Your task to perform on an android device: search for starred emails in the gmail app Image 0: 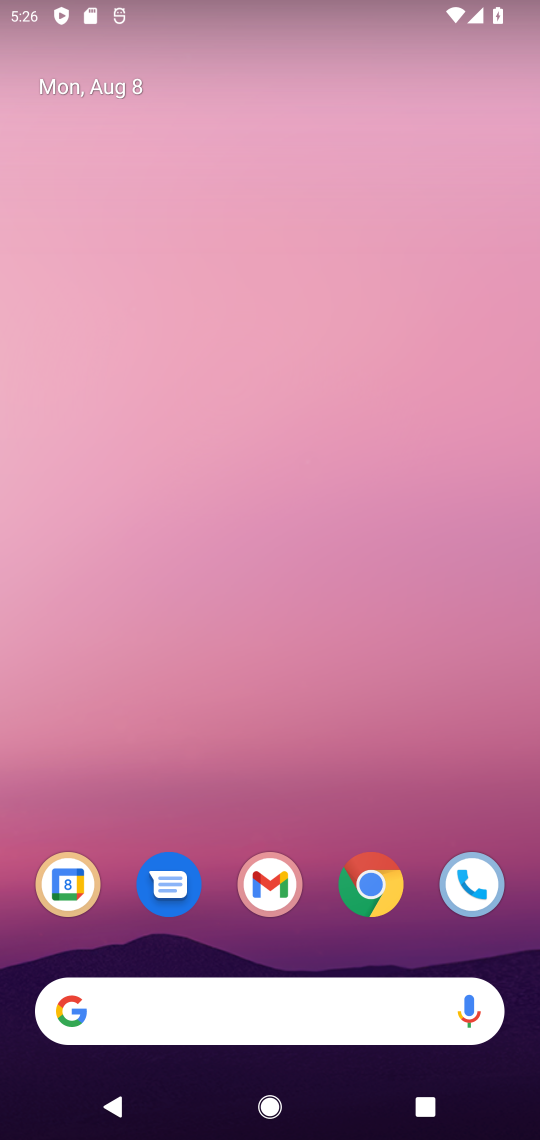
Step 0: drag from (322, 846) to (284, 116)
Your task to perform on an android device: search for starred emails in the gmail app Image 1: 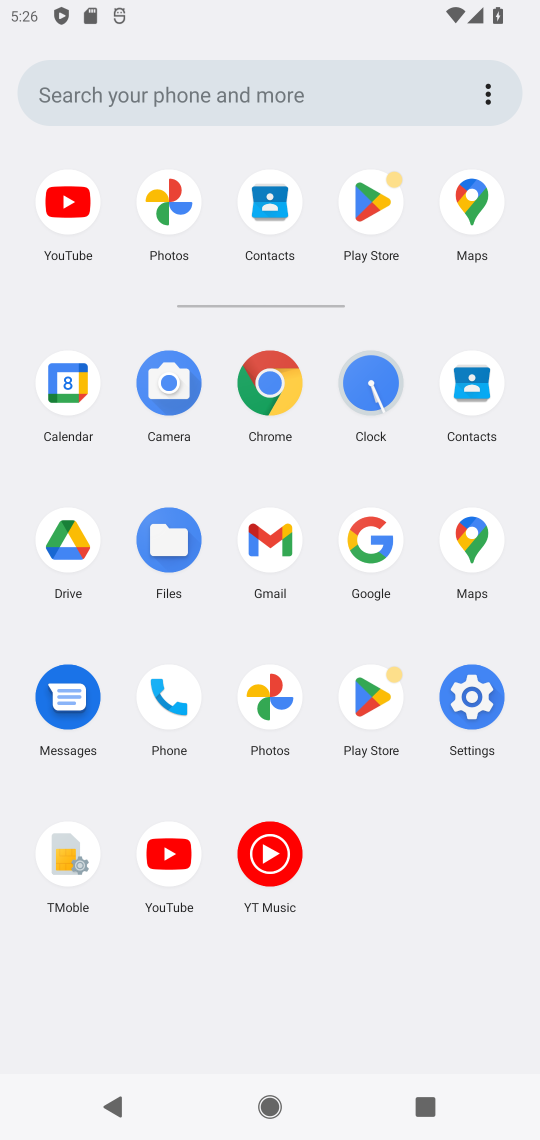
Step 1: click (267, 523)
Your task to perform on an android device: search for starred emails in the gmail app Image 2: 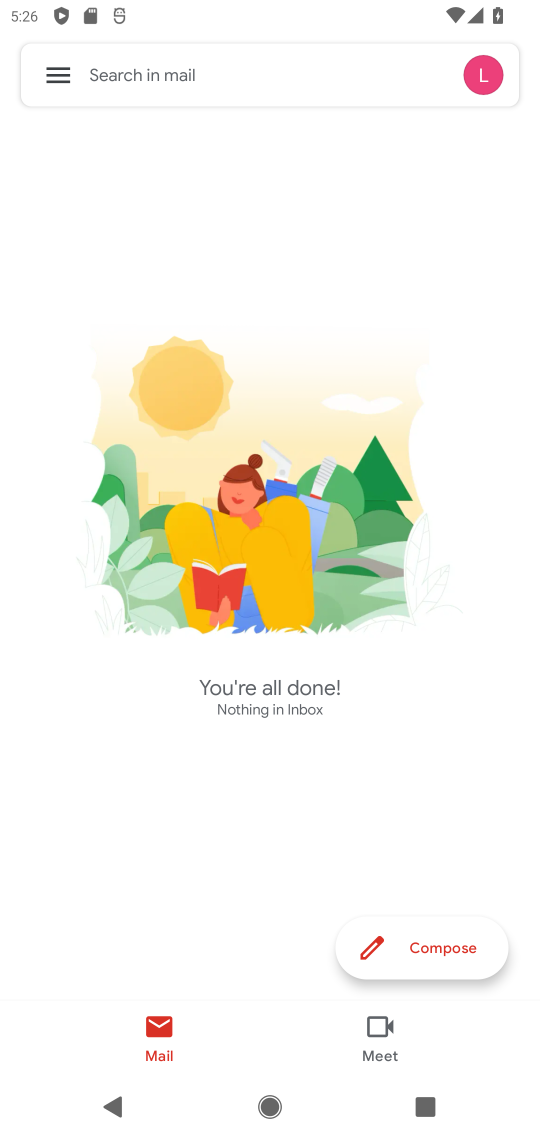
Step 2: click (50, 94)
Your task to perform on an android device: search for starred emails in the gmail app Image 3: 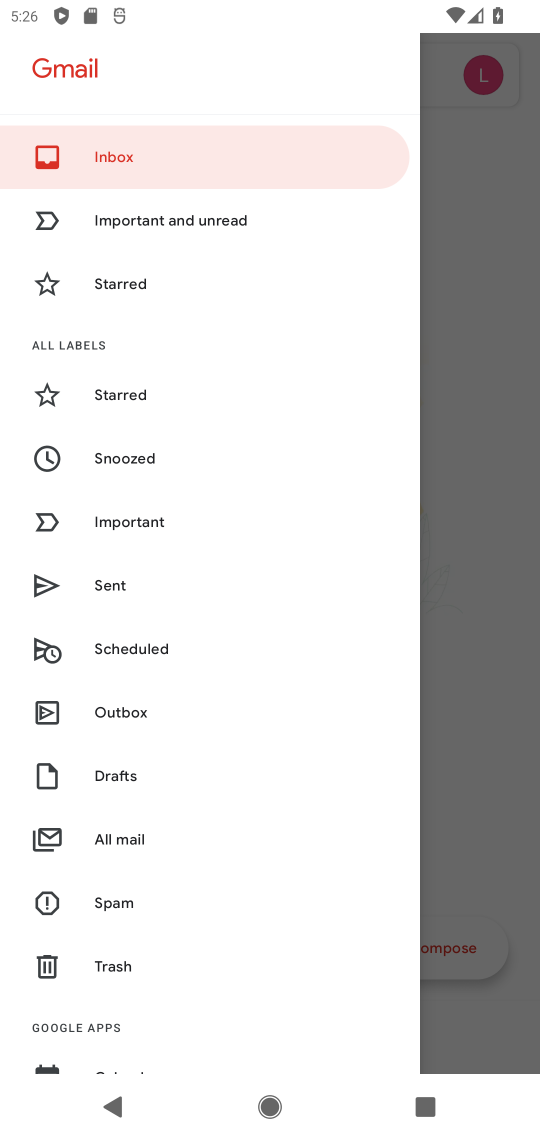
Step 3: click (152, 396)
Your task to perform on an android device: search for starred emails in the gmail app Image 4: 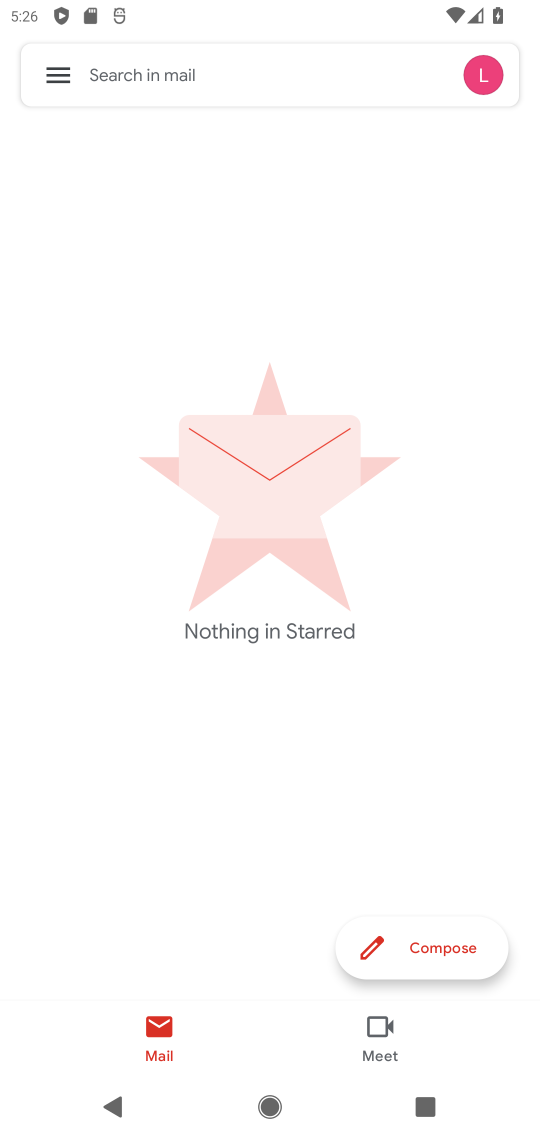
Step 4: task complete